Your task to perform on an android device: refresh tabs in the chrome app Image 0: 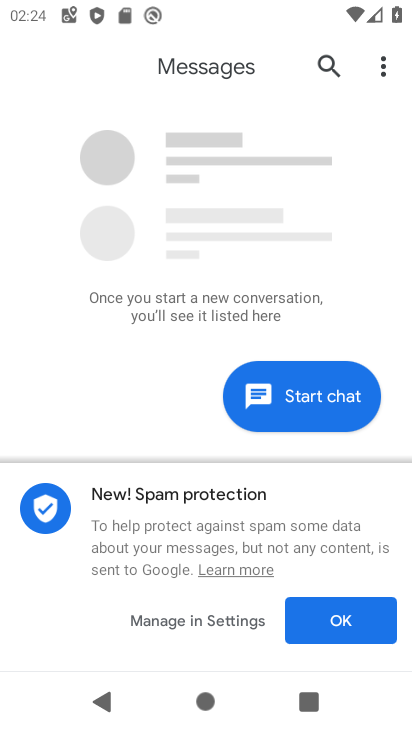
Step 0: press home button
Your task to perform on an android device: refresh tabs in the chrome app Image 1: 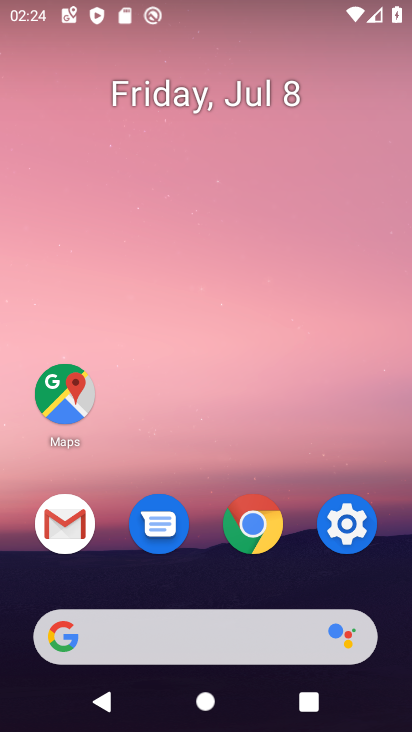
Step 1: click (236, 536)
Your task to perform on an android device: refresh tabs in the chrome app Image 2: 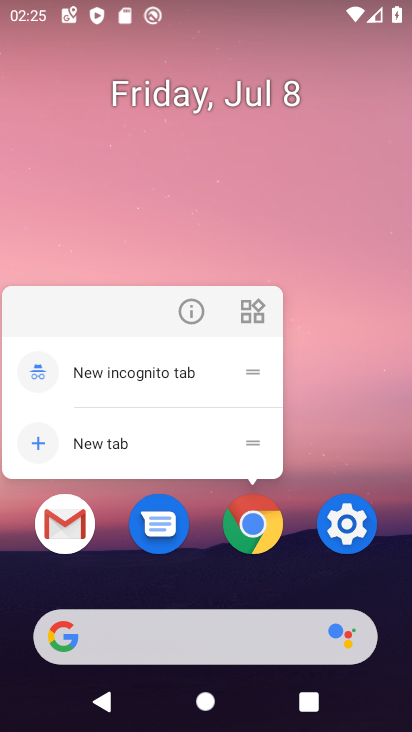
Step 2: click (249, 532)
Your task to perform on an android device: refresh tabs in the chrome app Image 3: 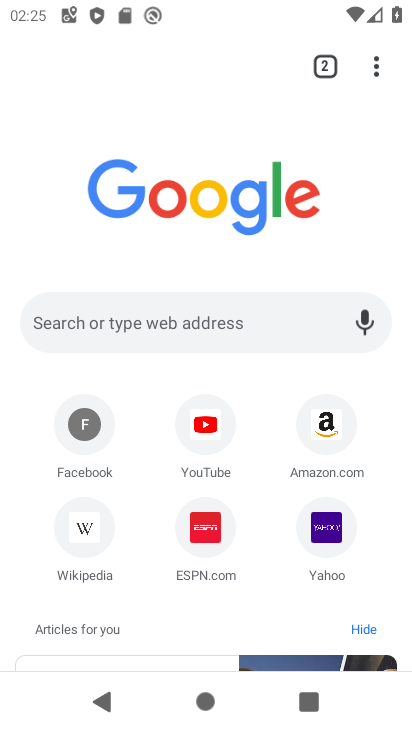
Step 3: click (368, 86)
Your task to perform on an android device: refresh tabs in the chrome app Image 4: 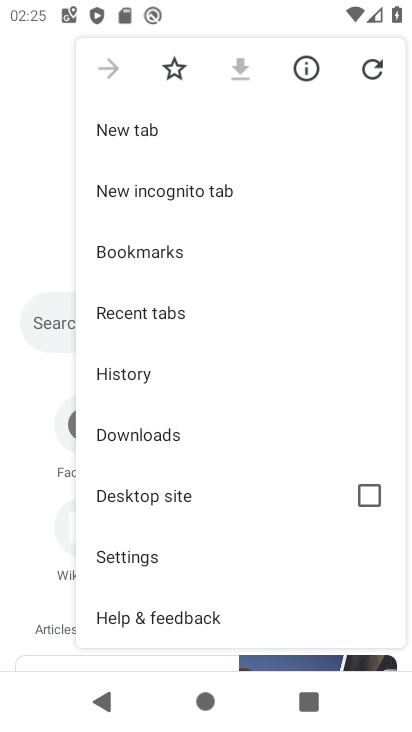
Step 4: click (366, 73)
Your task to perform on an android device: refresh tabs in the chrome app Image 5: 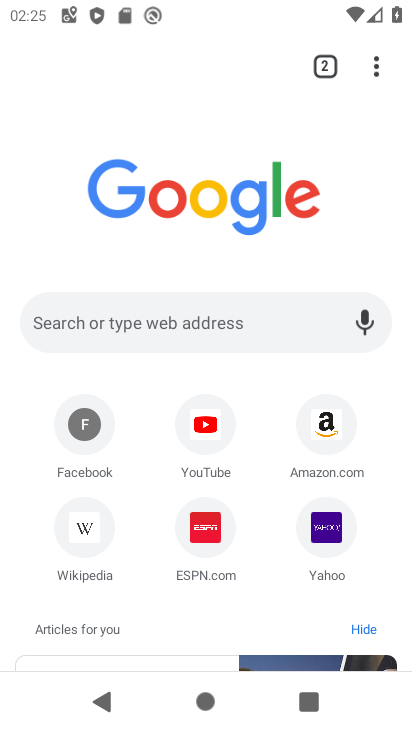
Step 5: task complete